Your task to perform on an android device: install app "Chime – Mobile Banking" Image 0: 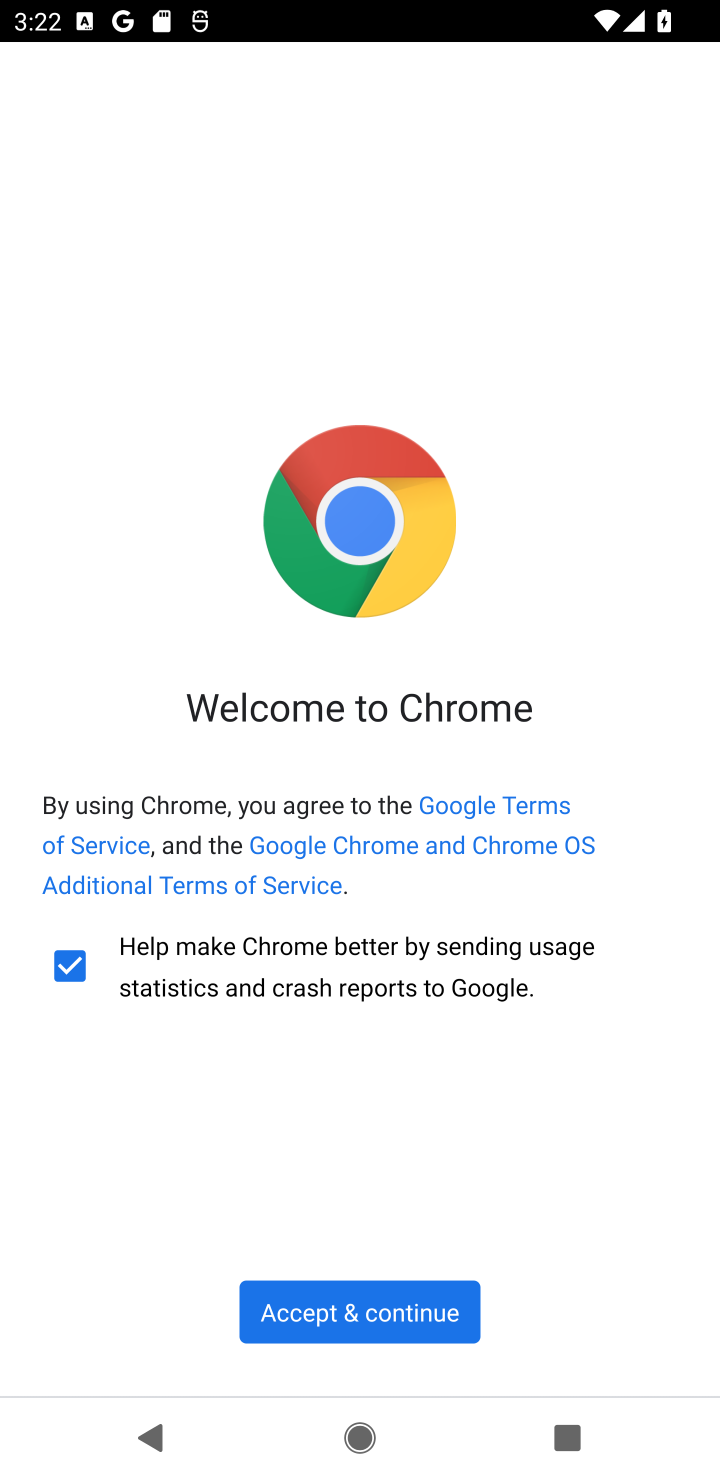
Step 0: press home button
Your task to perform on an android device: install app "Chime – Mobile Banking" Image 1: 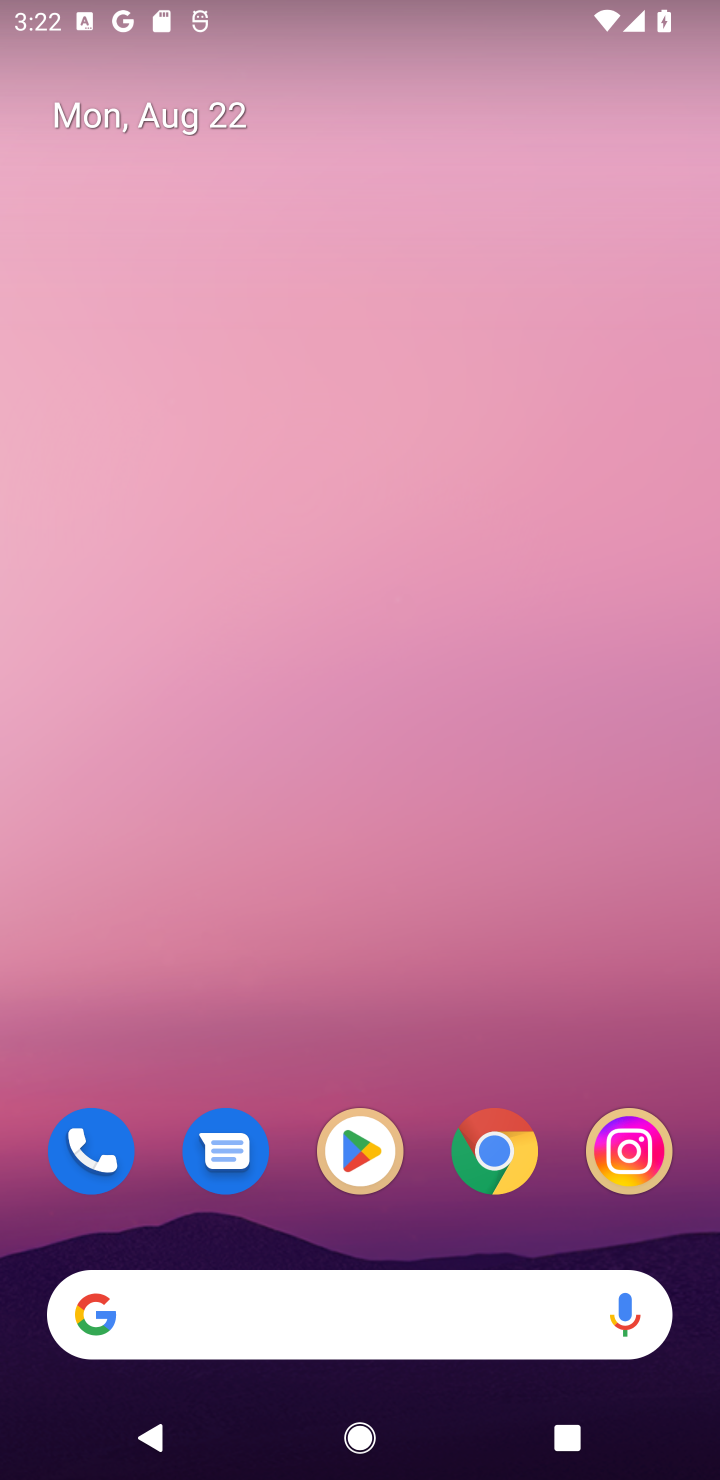
Step 1: click (338, 1158)
Your task to perform on an android device: install app "Chime – Mobile Banking" Image 2: 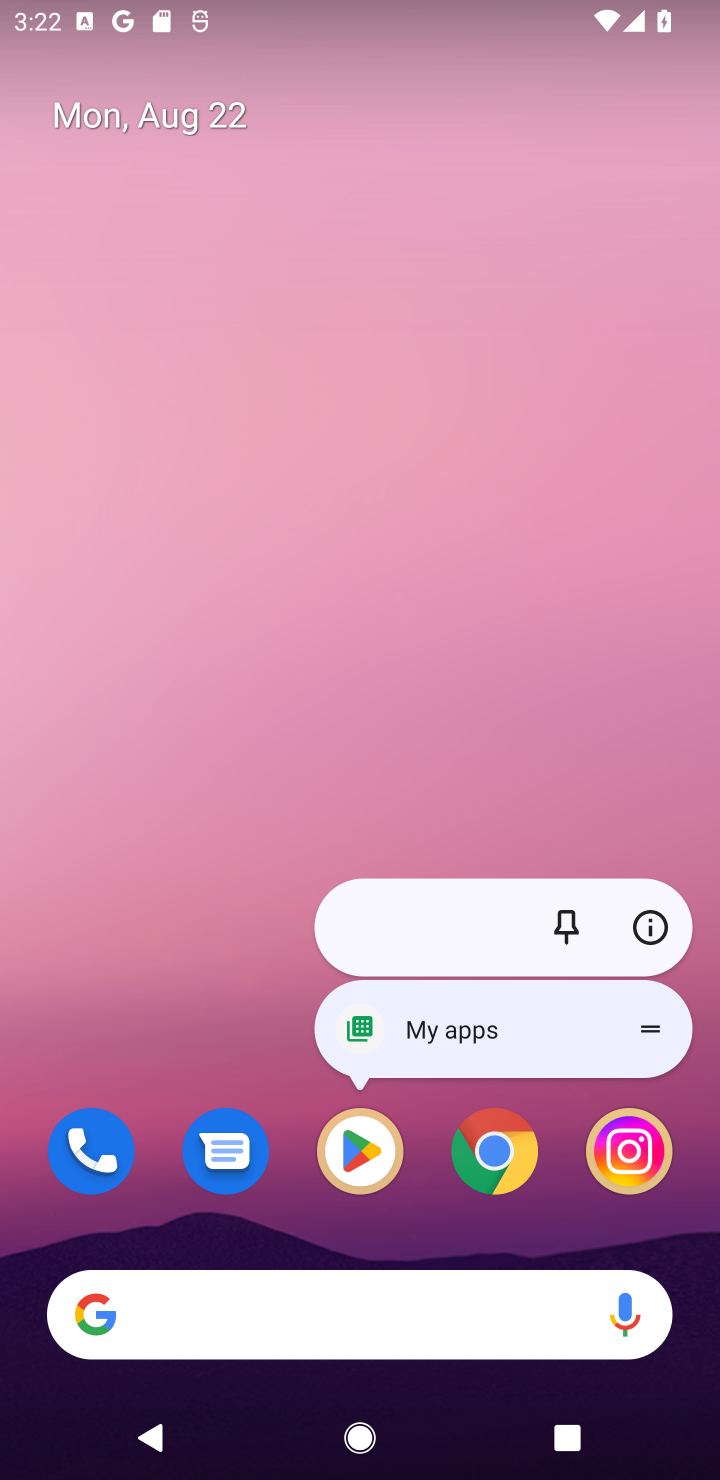
Step 2: click (368, 1160)
Your task to perform on an android device: install app "Chime – Mobile Banking" Image 3: 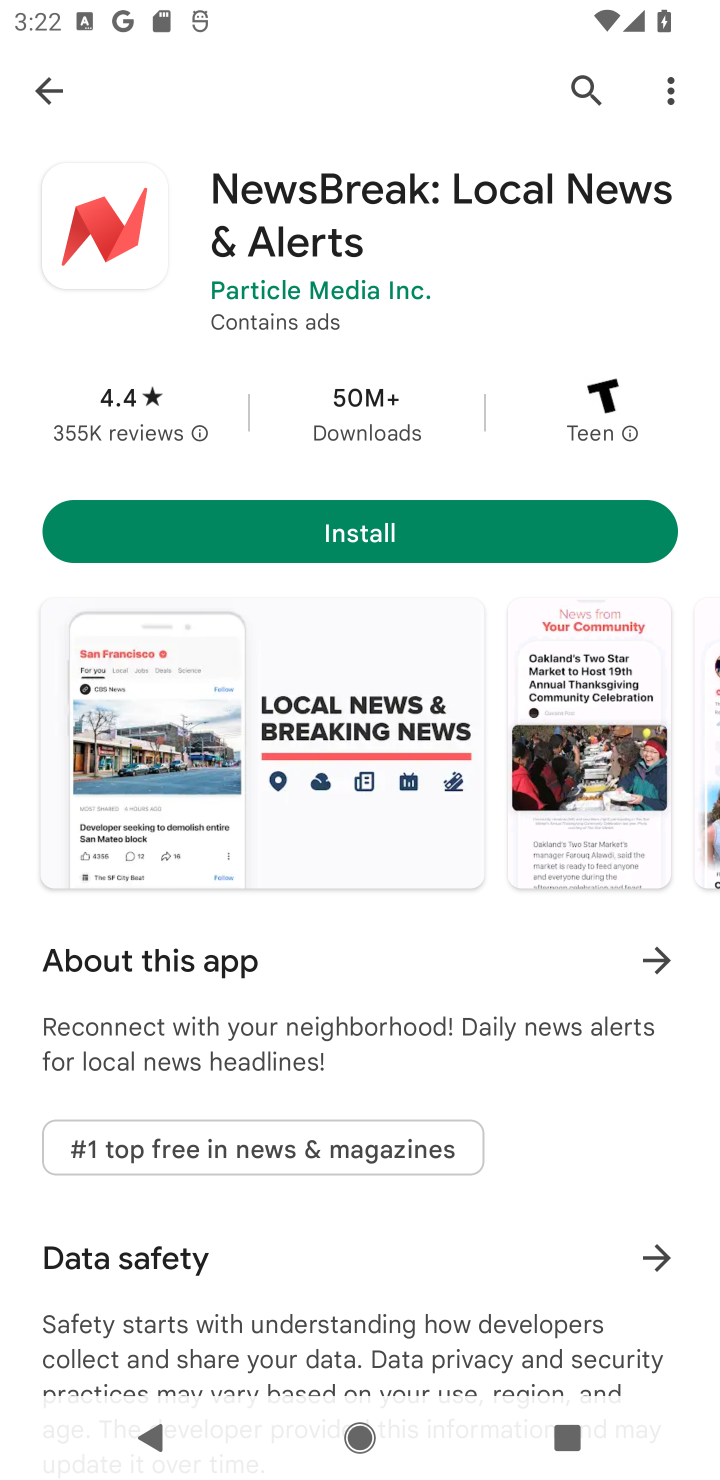
Step 3: click (575, 82)
Your task to perform on an android device: install app "Chime – Mobile Banking" Image 4: 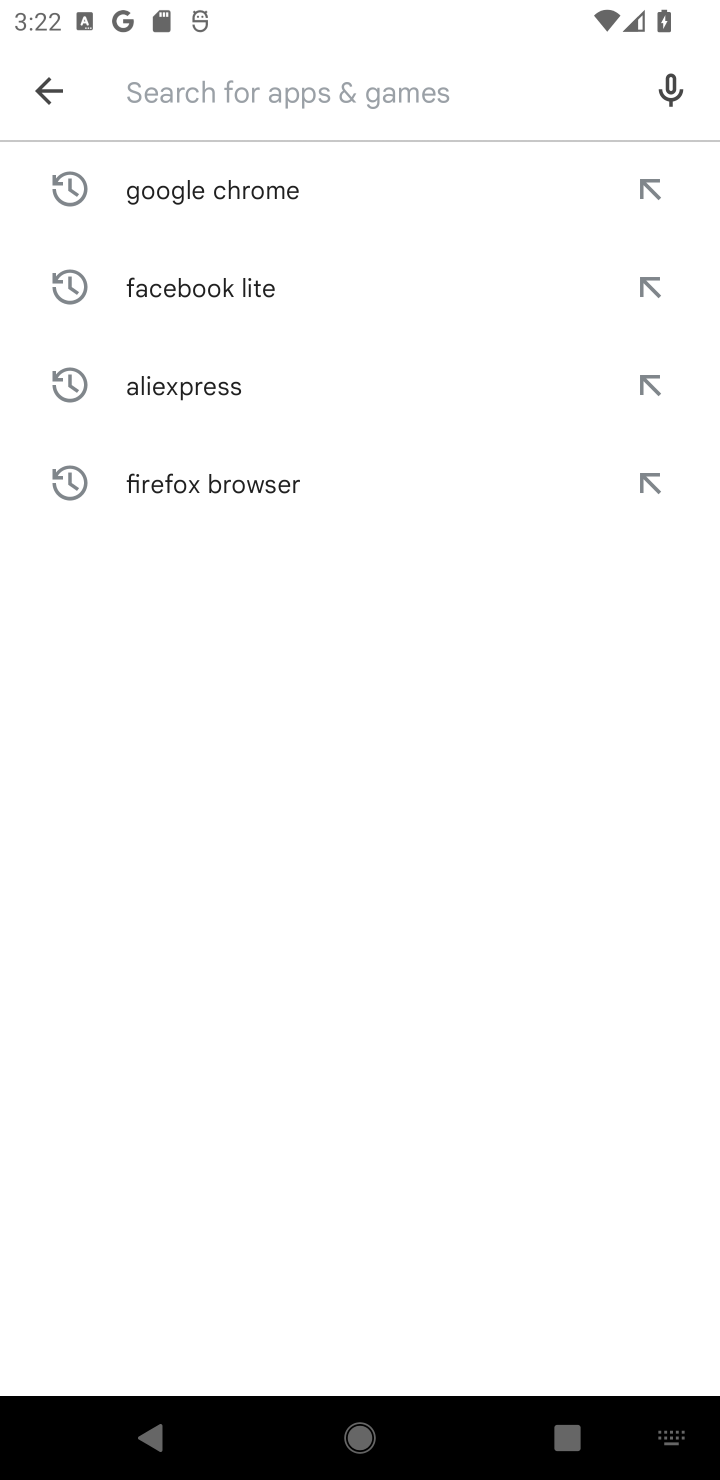
Step 4: type "Chime – Mobile Banking"
Your task to perform on an android device: install app "Chime – Mobile Banking" Image 5: 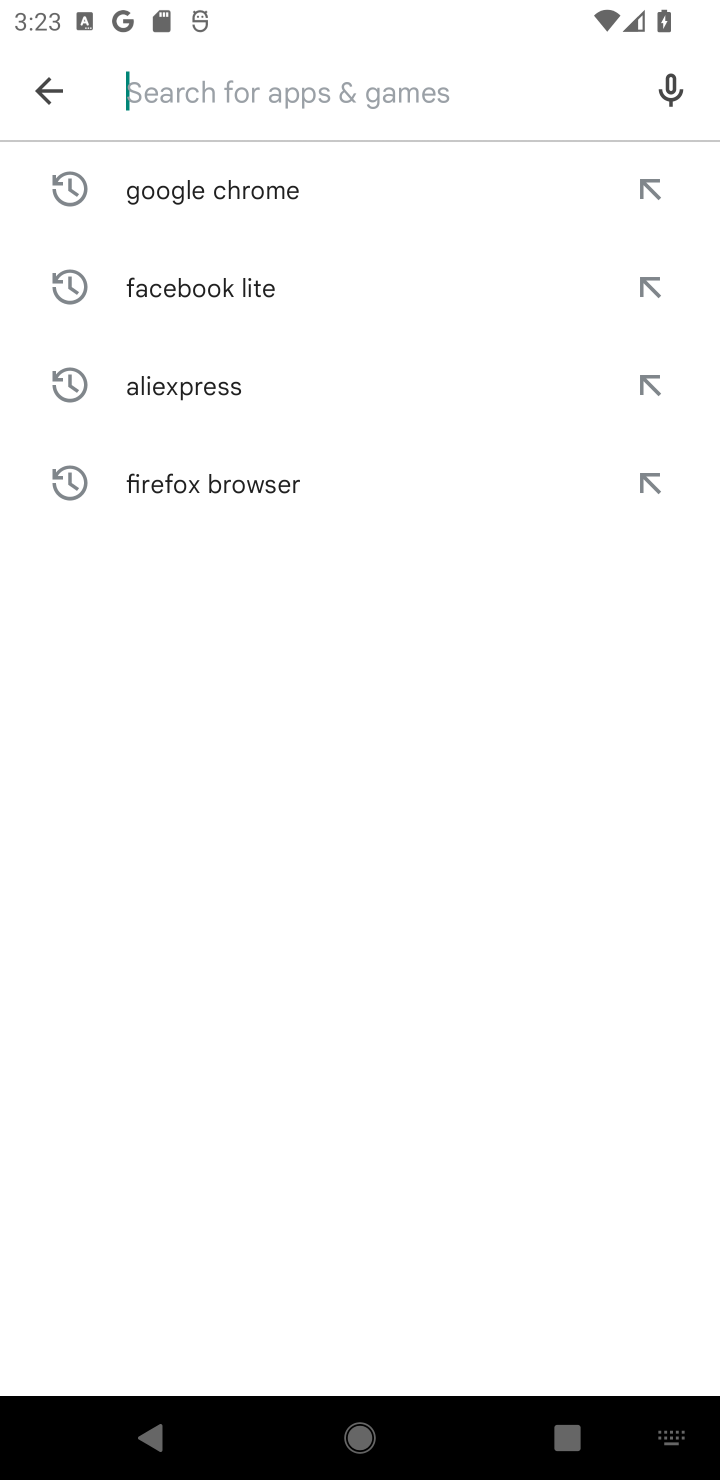
Step 5: type "Chime Mobile Banking"
Your task to perform on an android device: install app "Chime – Mobile Banking" Image 6: 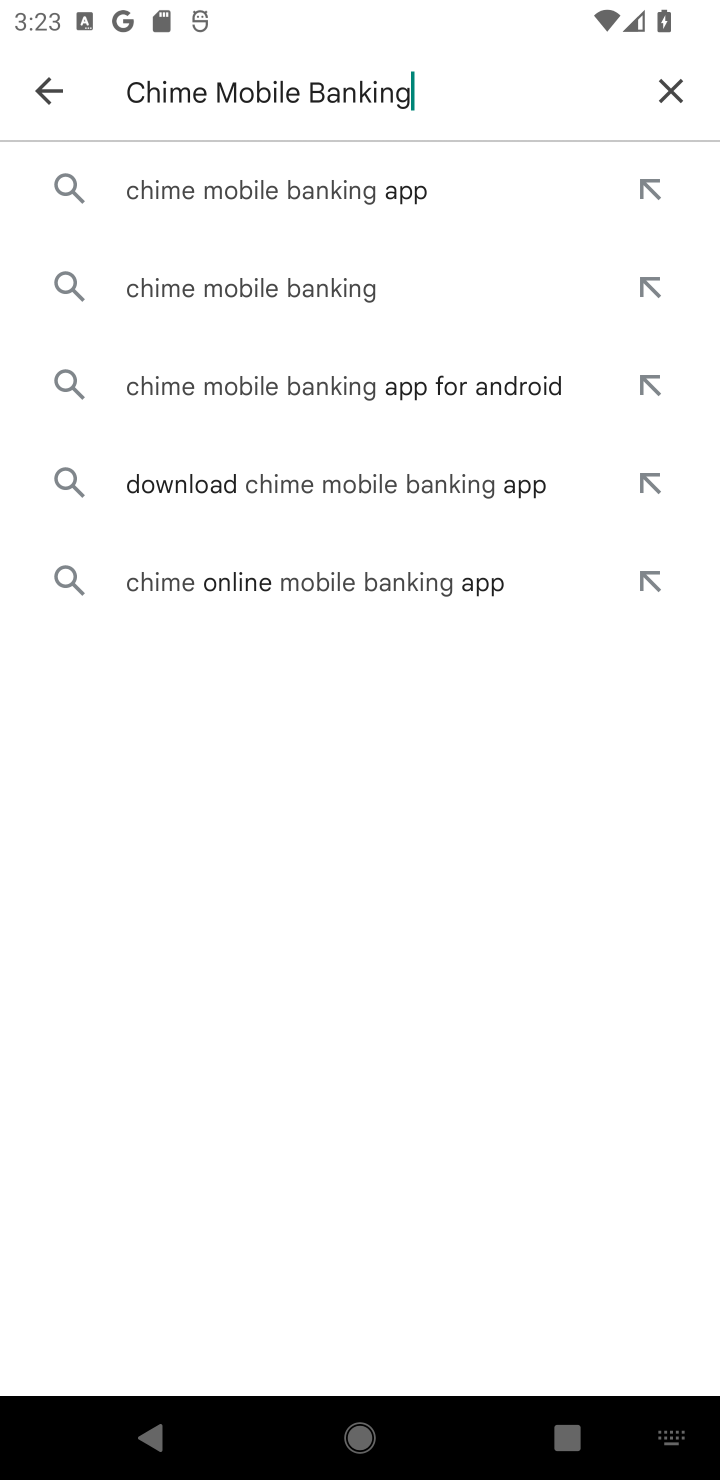
Step 6: click (233, 188)
Your task to perform on an android device: install app "Chime – Mobile Banking" Image 7: 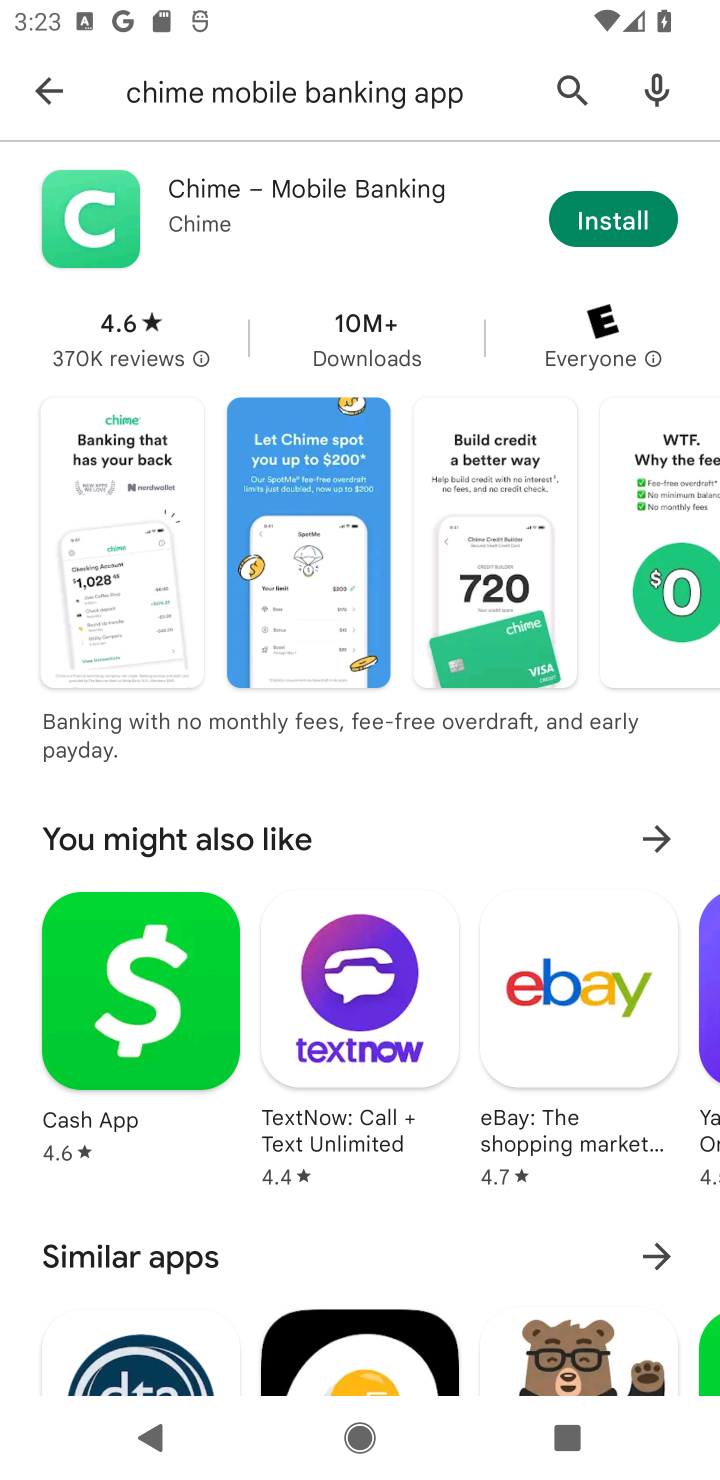
Step 7: click (600, 214)
Your task to perform on an android device: install app "Chime – Mobile Banking" Image 8: 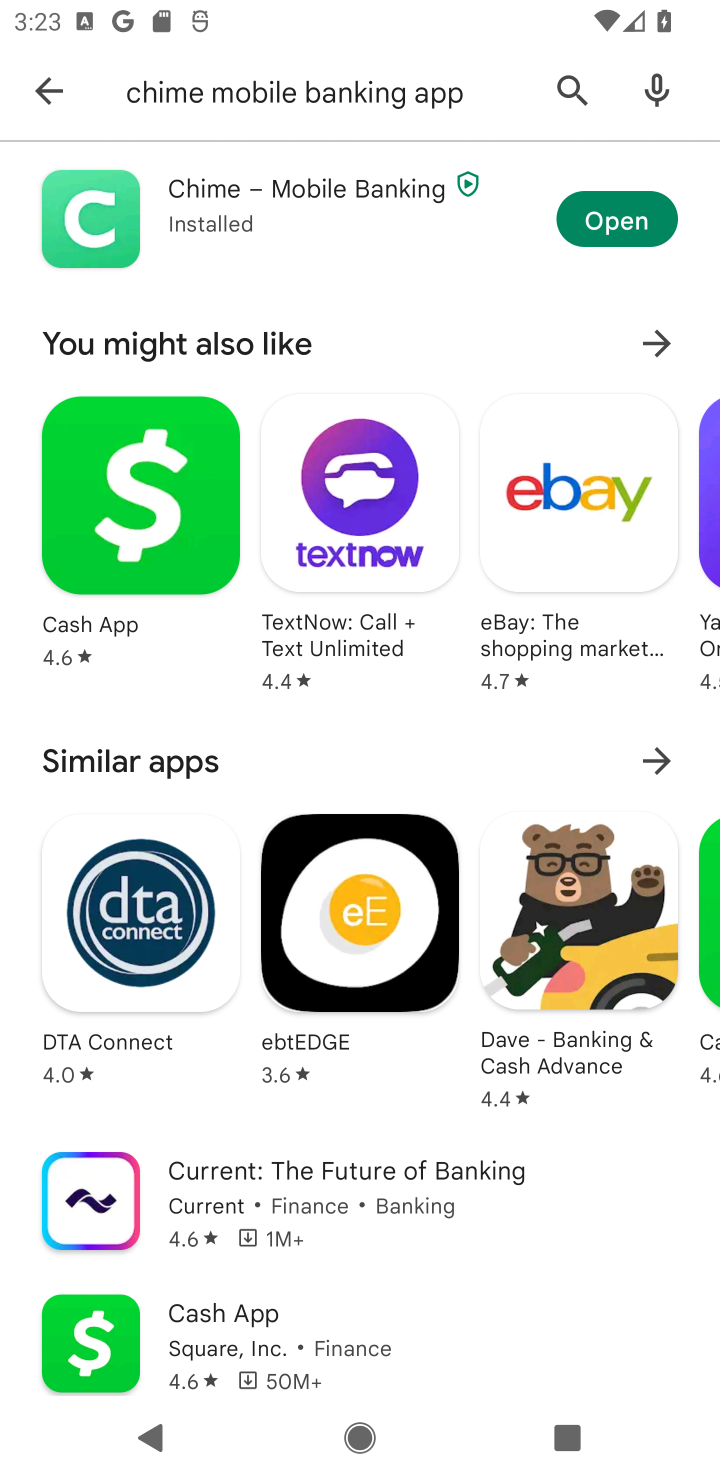
Step 8: task complete